Your task to perform on an android device: delete a single message in the gmail app Image 0: 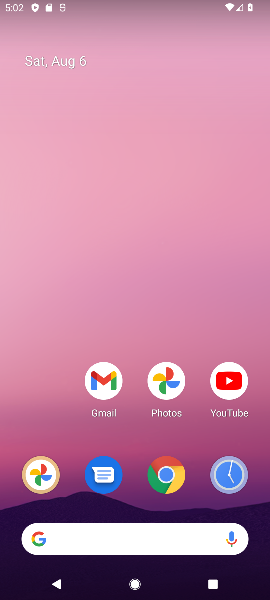
Step 0: drag from (139, 344) to (104, 45)
Your task to perform on an android device: delete a single message in the gmail app Image 1: 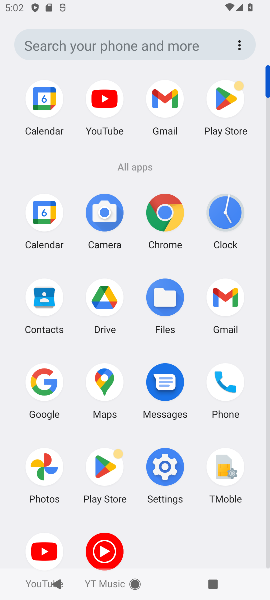
Step 1: click (221, 291)
Your task to perform on an android device: delete a single message in the gmail app Image 2: 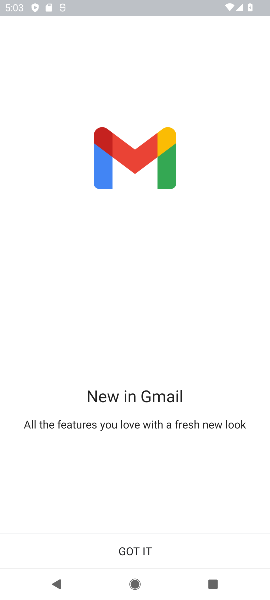
Step 2: click (223, 542)
Your task to perform on an android device: delete a single message in the gmail app Image 3: 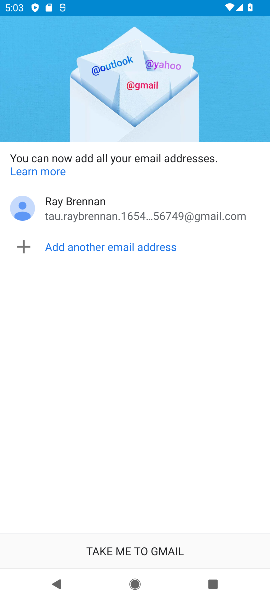
Step 3: click (223, 542)
Your task to perform on an android device: delete a single message in the gmail app Image 4: 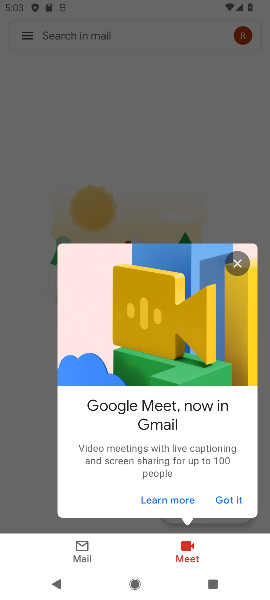
Step 4: click (241, 266)
Your task to perform on an android device: delete a single message in the gmail app Image 5: 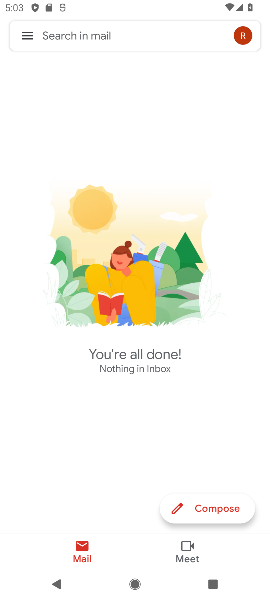
Step 5: click (31, 34)
Your task to perform on an android device: delete a single message in the gmail app Image 6: 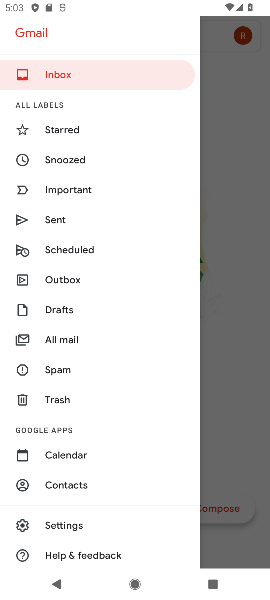
Step 6: click (83, 338)
Your task to perform on an android device: delete a single message in the gmail app Image 7: 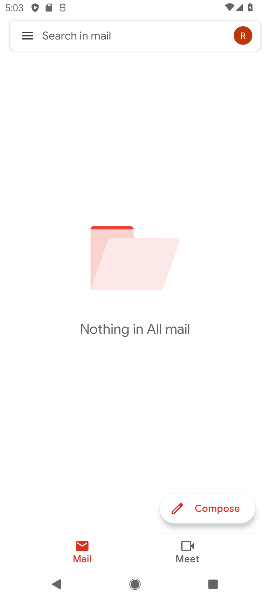
Step 7: task complete